Your task to perform on an android device: turn on the 12-hour format for clock Image 0: 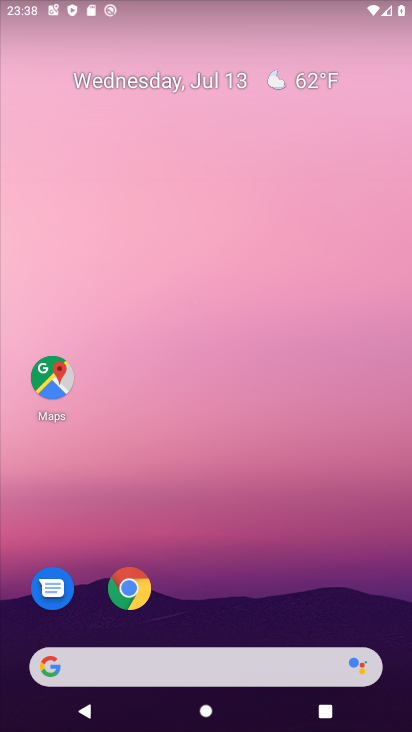
Step 0: drag from (264, 588) to (233, 208)
Your task to perform on an android device: turn on the 12-hour format for clock Image 1: 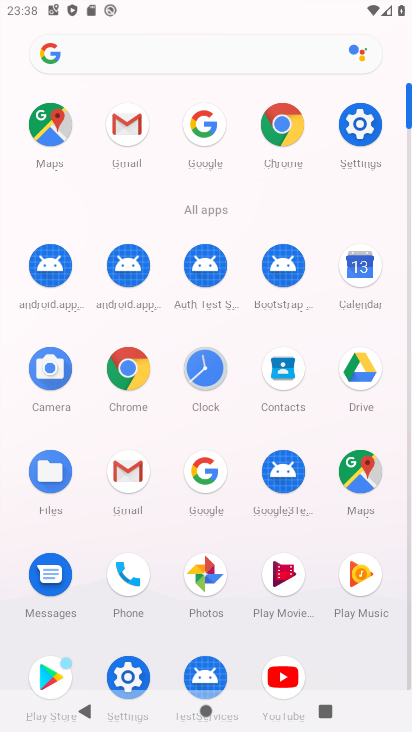
Step 1: click (203, 377)
Your task to perform on an android device: turn on the 12-hour format for clock Image 2: 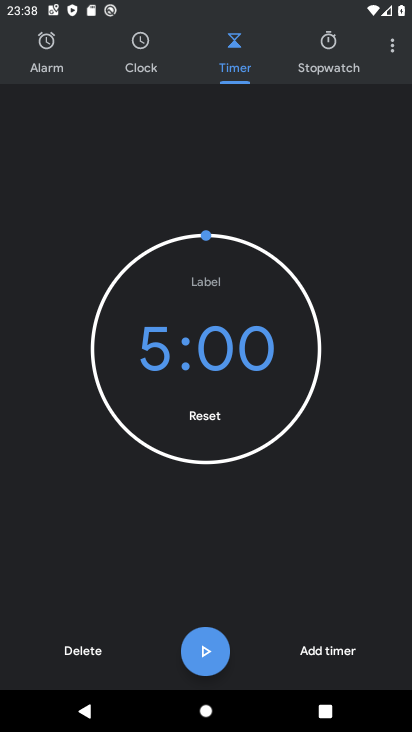
Step 2: click (391, 39)
Your task to perform on an android device: turn on the 12-hour format for clock Image 3: 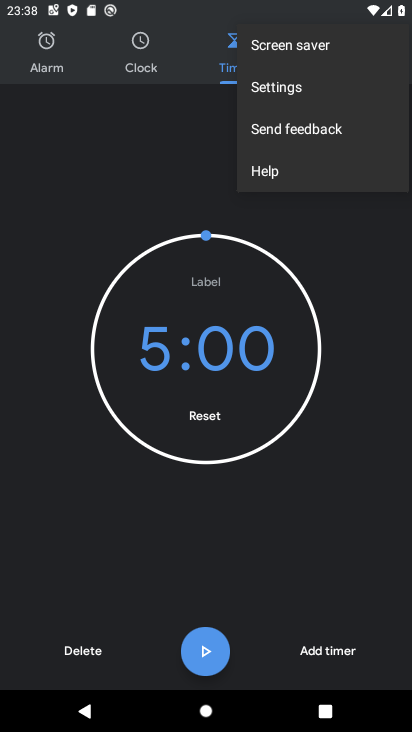
Step 3: click (267, 96)
Your task to perform on an android device: turn on the 12-hour format for clock Image 4: 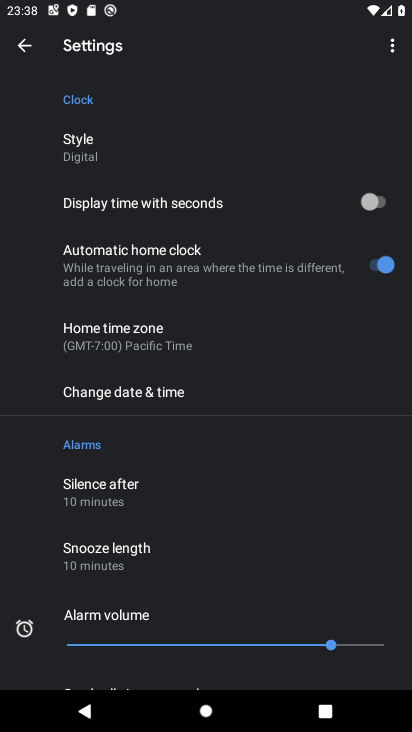
Step 4: click (139, 386)
Your task to perform on an android device: turn on the 12-hour format for clock Image 5: 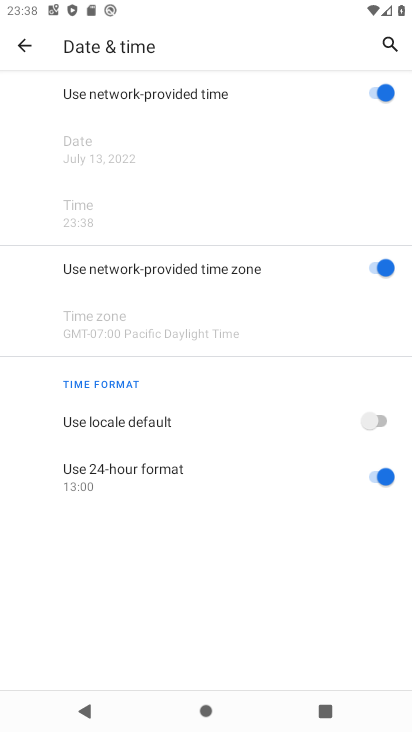
Step 5: task complete